Your task to perform on an android device: change the clock display to digital Image 0: 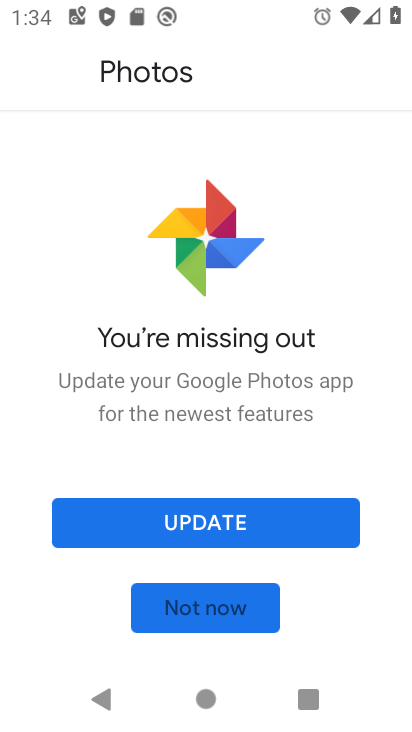
Step 0: press home button
Your task to perform on an android device: change the clock display to digital Image 1: 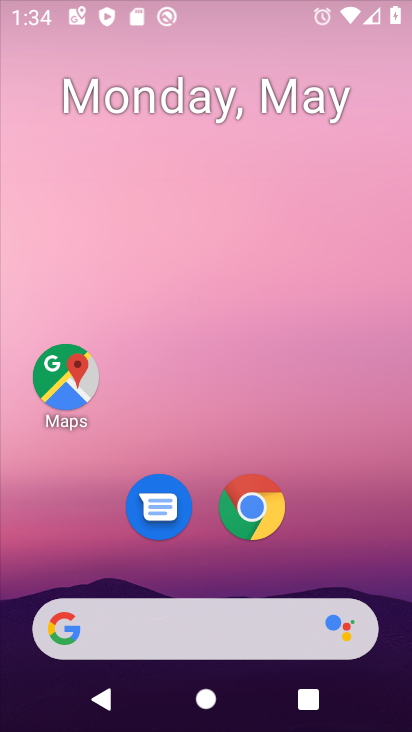
Step 1: drag from (234, 709) to (191, 157)
Your task to perform on an android device: change the clock display to digital Image 2: 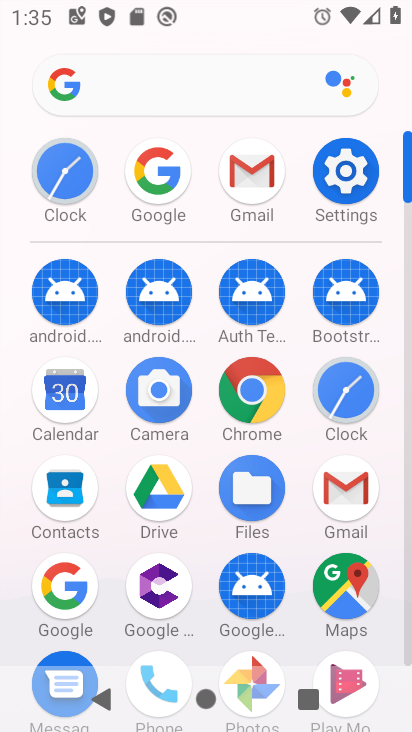
Step 2: click (343, 393)
Your task to perform on an android device: change the clock display to digital Image 3: 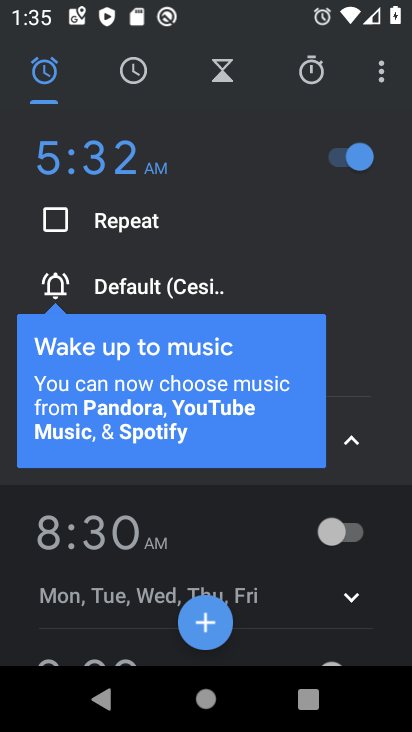
Step 3: click (383, 77)
Your task to perform on an android device: change the clock display to digital Image 4: 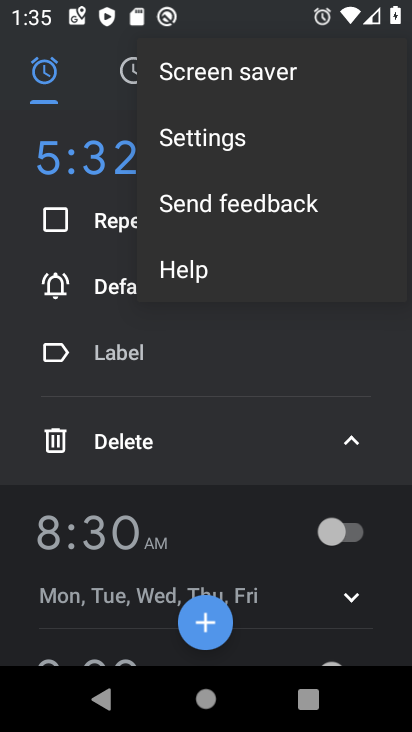
Step 4: click (206, 138)
Your task to perform on an android device: change the clock display to digital Image 5: 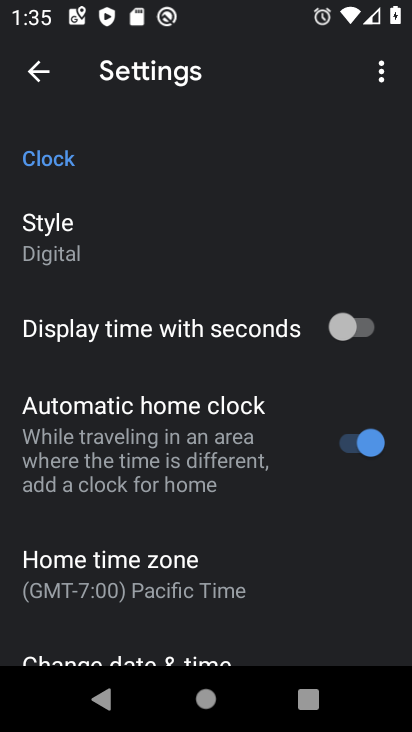
Step 5: task complete